Your task to perform on an android device: check battery use Image 0: 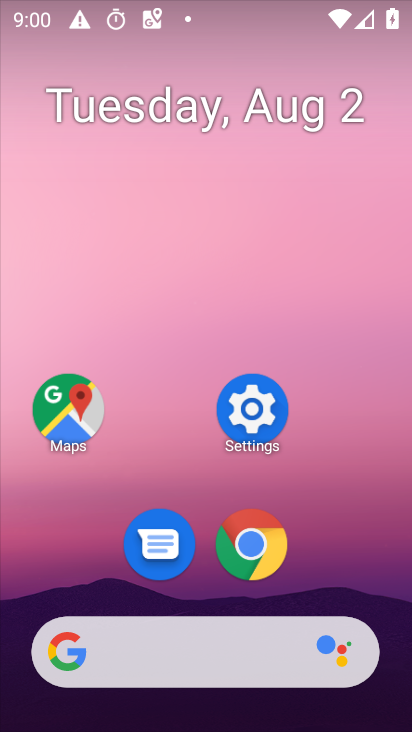
Step 0: click (243, 412)
Your task to perform on an android device: check battery use Image 1: 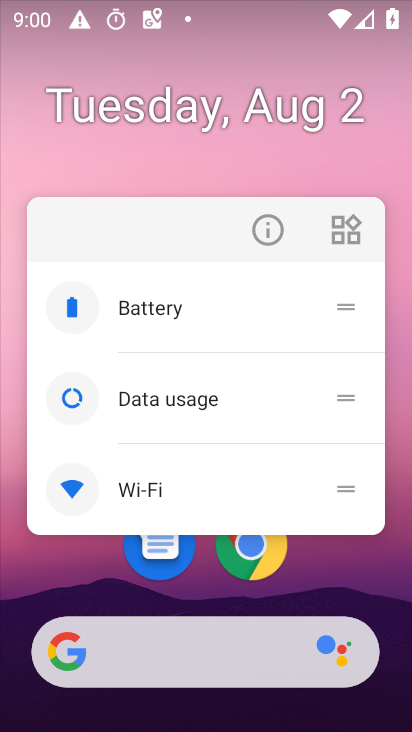
Step 1: click (321, 552)
Your task to perform on an android device: check battery use Image 2: 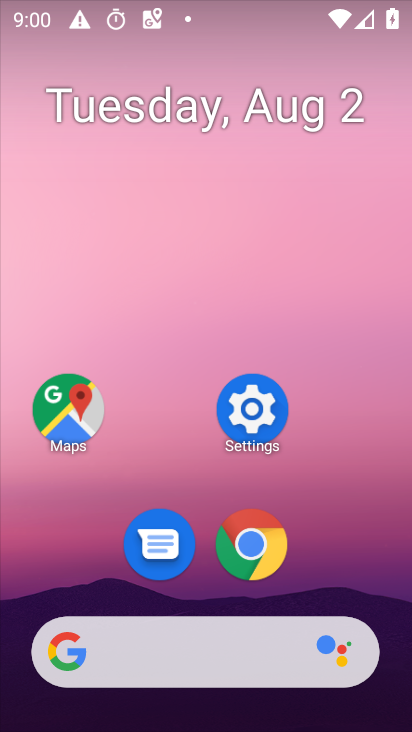
Step 2: click (239, 404)
Your task to perform on an android device: check battery use Image 3: 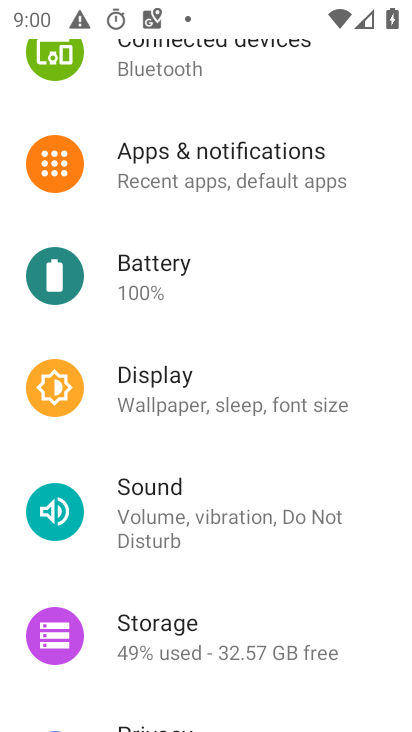
Step 3: drag from (331, 105) to (269, 573)
Your task to perform on an android device: check battery use Image 4: 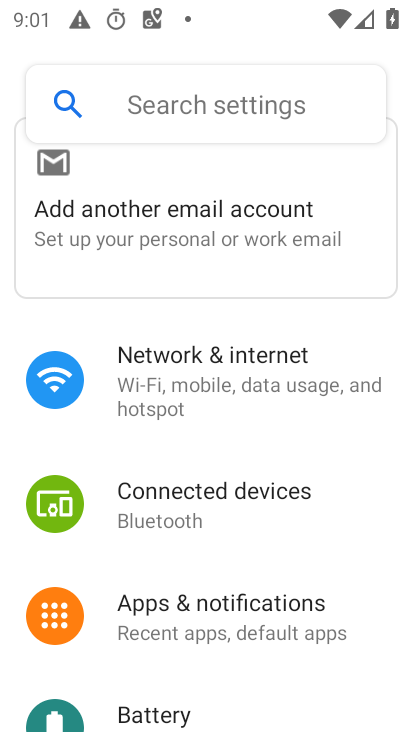
Step 4: drag from (225, 579) to (319, 207)
Your task to perform on an android device: check battery use Image 5: 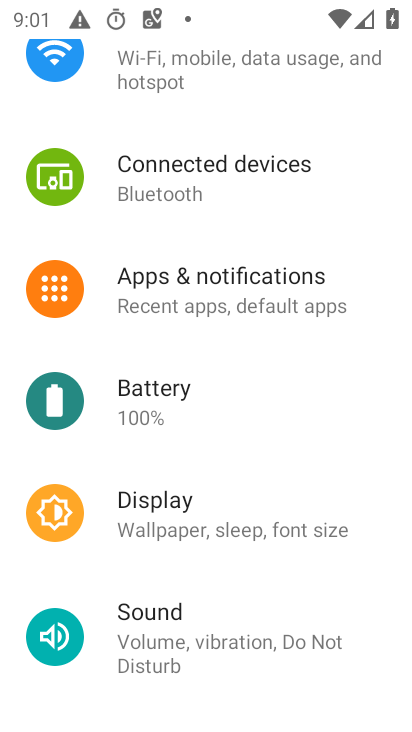
Step 5: click (169, 398)
Your task to perform on an android device: check battery use Image 6: 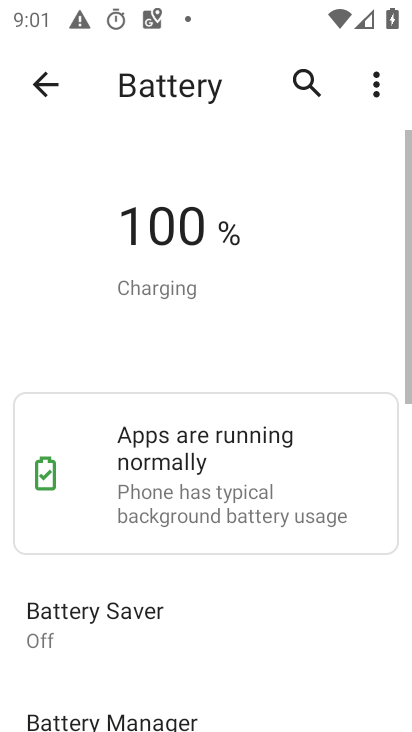
Step 6: click (374, 81)
Your task to perform on an android device: check battery use Image 7: 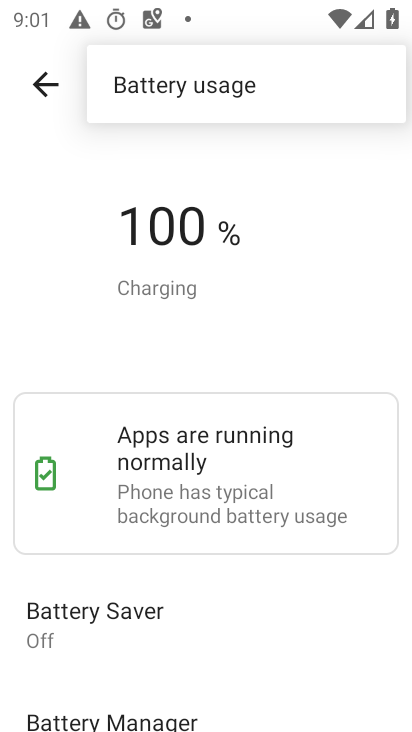
Step 7: click (282, 100)
Your task to perform on an android device: check battery use Image 8: 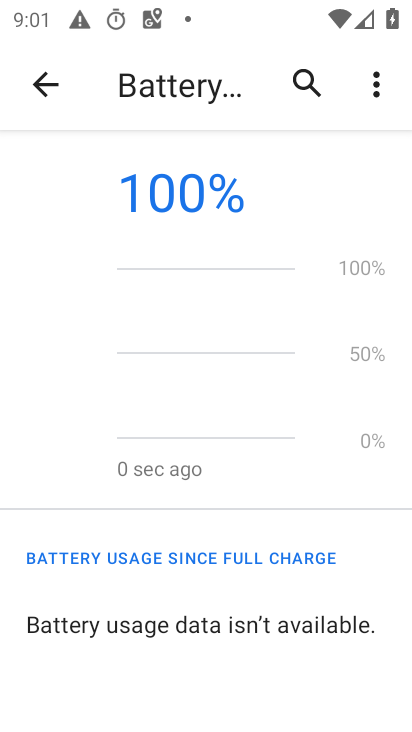
Step 8: task complete